Your task to perform on an android device: Search for sushi restaurants on Maps Image 0: 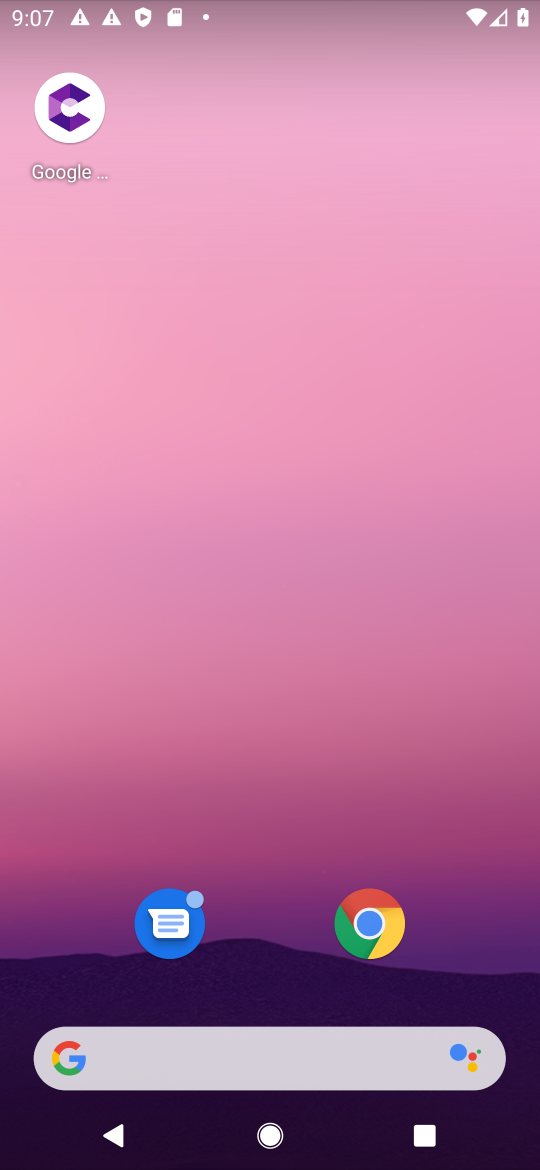
Step 0: drag from (39, 1137) to (254, 116)
Your task to perform on an android device: Search for sushi restaurants on Maps Image 1: 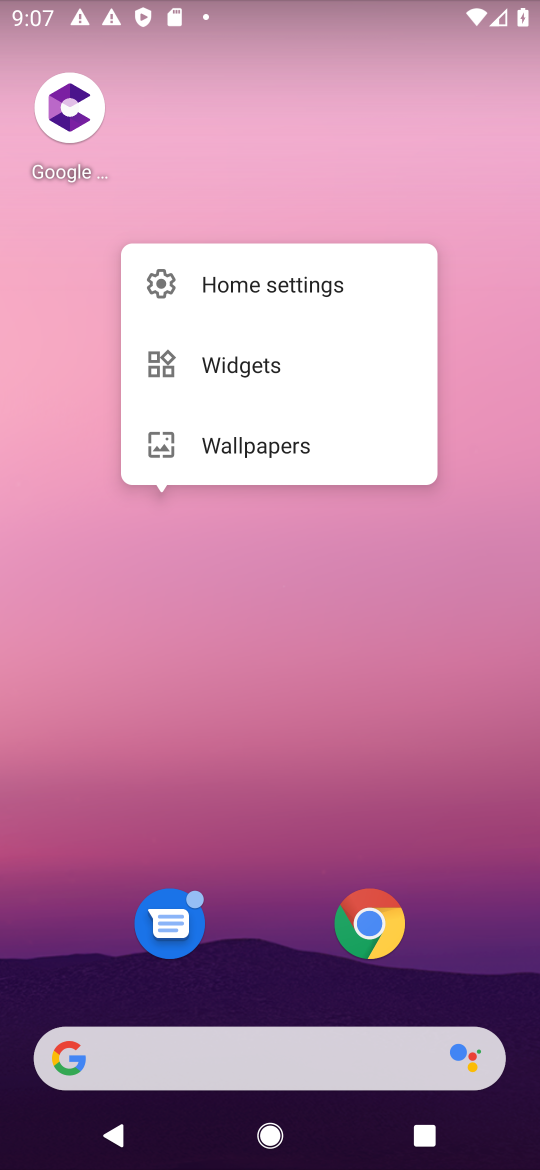
Step 1: click (29, 1148)
Your task to perform on an android device: Search for sushi restaurants on Maps Image 2: 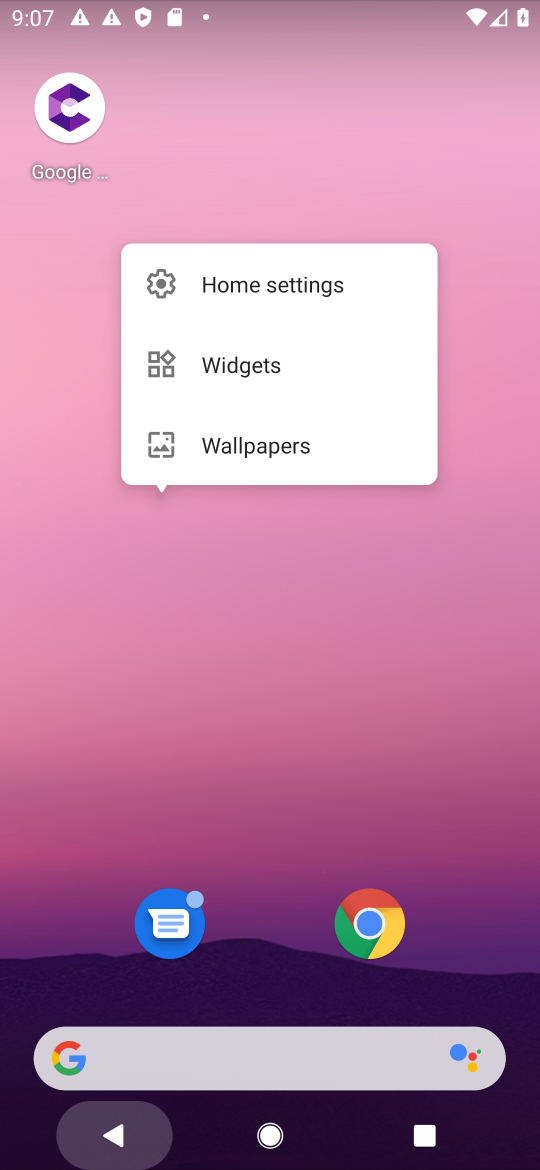
Step 2: drag from (36, 1136) to (262, 291)
Your task to perform on an android device: Search for sushi restaurants on Maps Image 3: 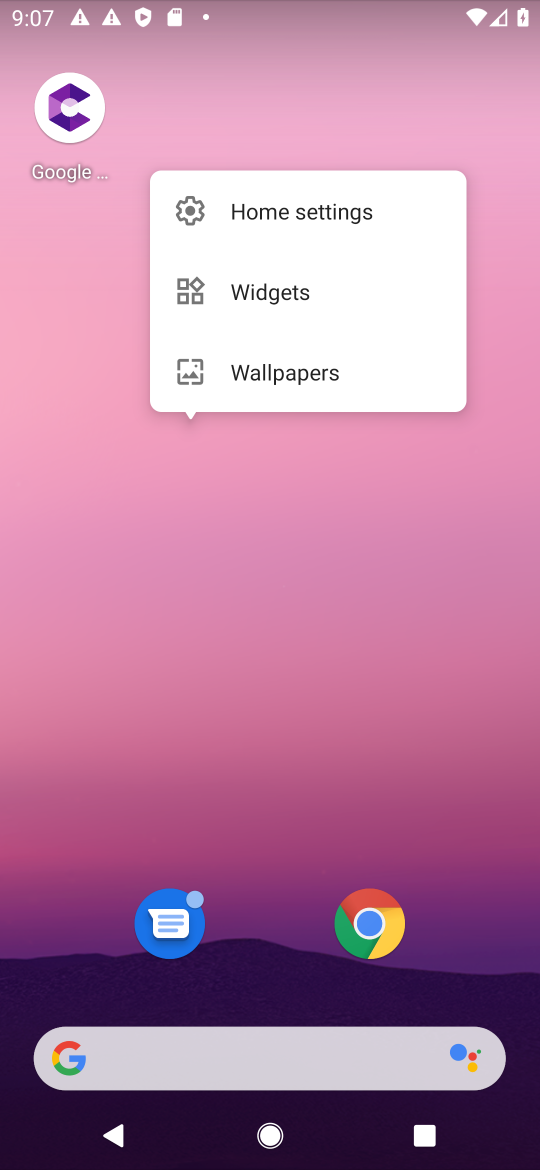
Step 3: drag from (50, 1155) to (207, 215)
Your task to perform on an android device: Search for sushi restaurants on Maps Image 4: 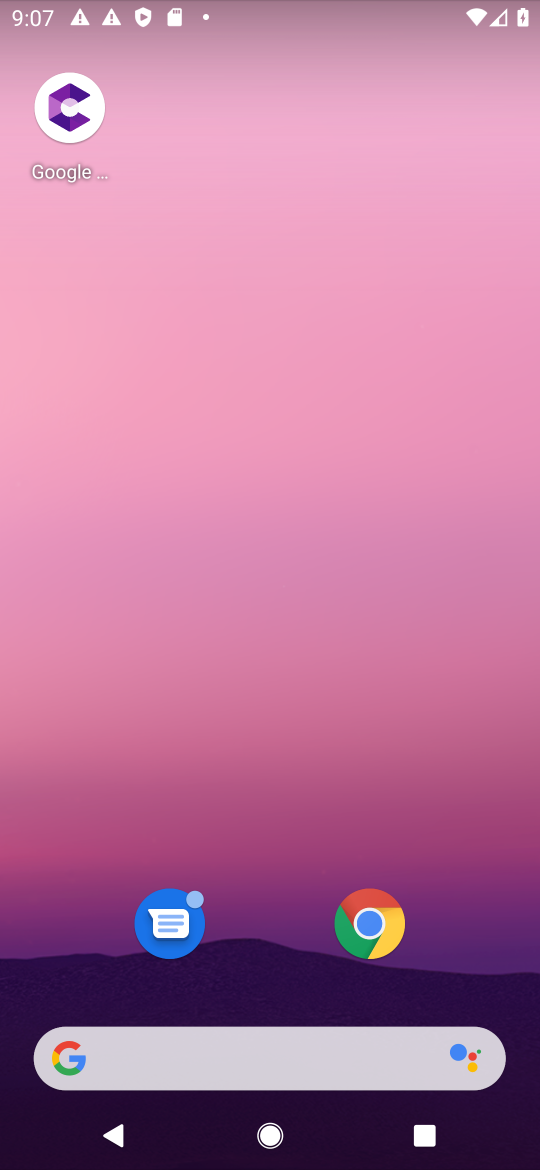
Step 4: drag from (60, 1126) to (248, 65)
Your task to perform on an android device: Search for sushi restaurants on Maps Image 5: 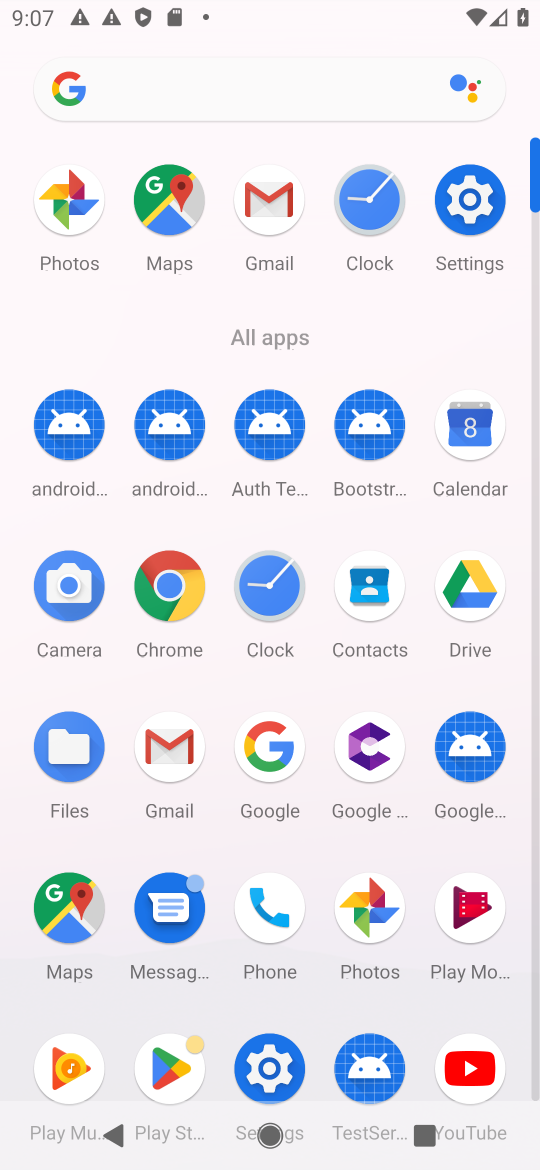
Step 5: click (158, 206)
Your task to perform on an android device: Search for sushi restaurants on Maps Image 6: 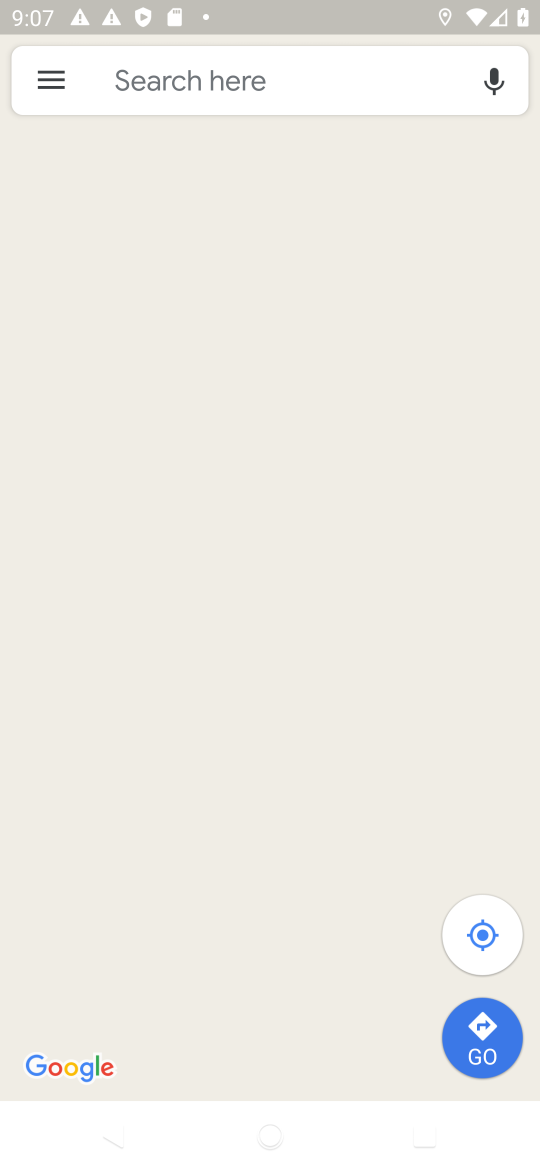
Step 6: click (138, 80)
Your task to perform on an android device: Search for sushi restaurants on Maps Image 7: 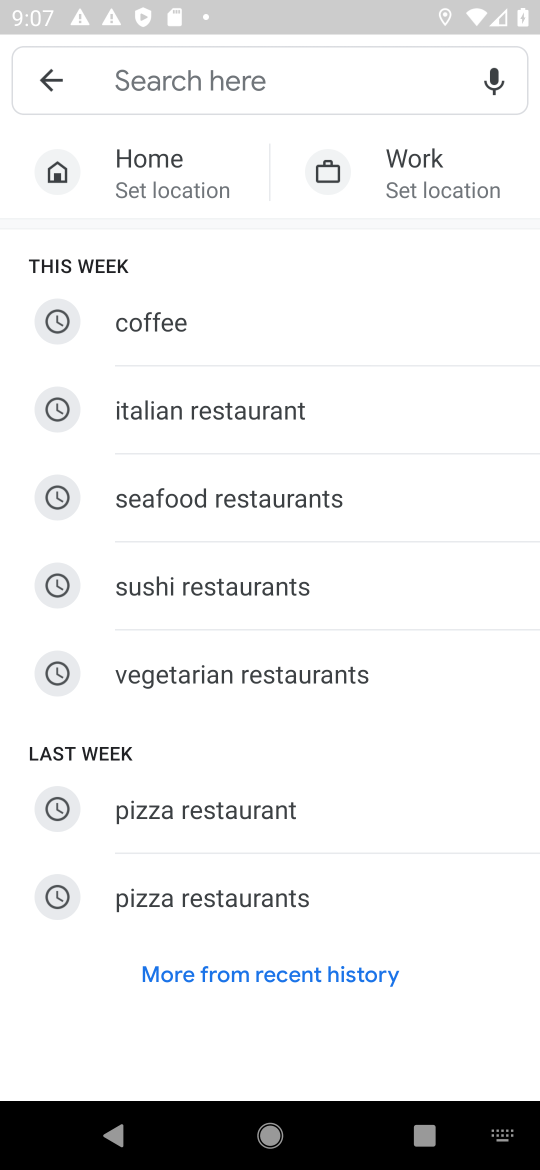
Step 7: click (204, 584)
Your task to perform on an android device: Search for sushi restaurants on Maps Image 8: 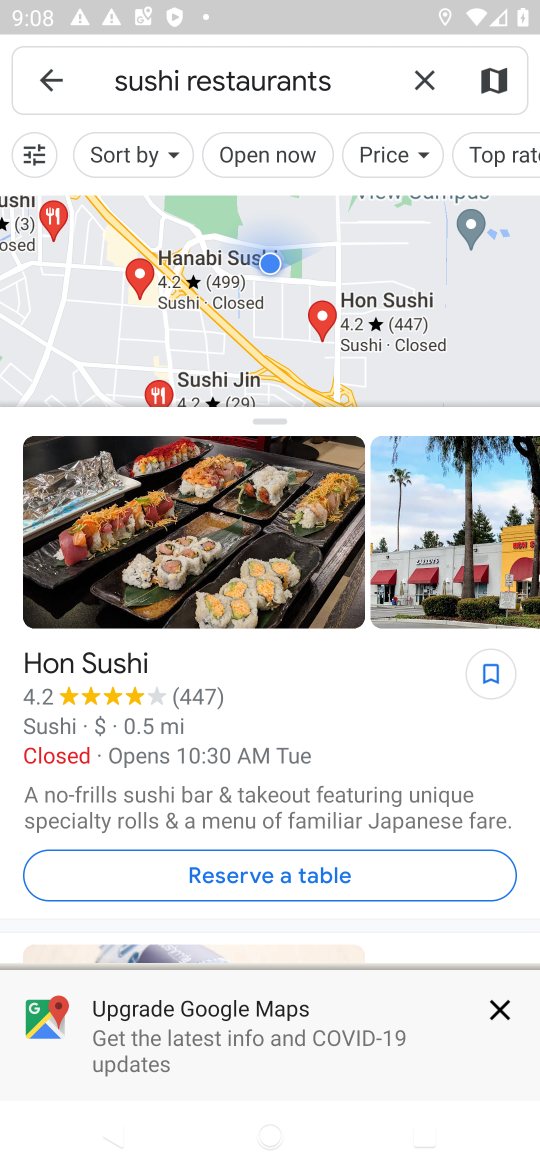
Step 8: task complete